Your task to perform on an android device: What's the weather going to be this weekend? Image 0: 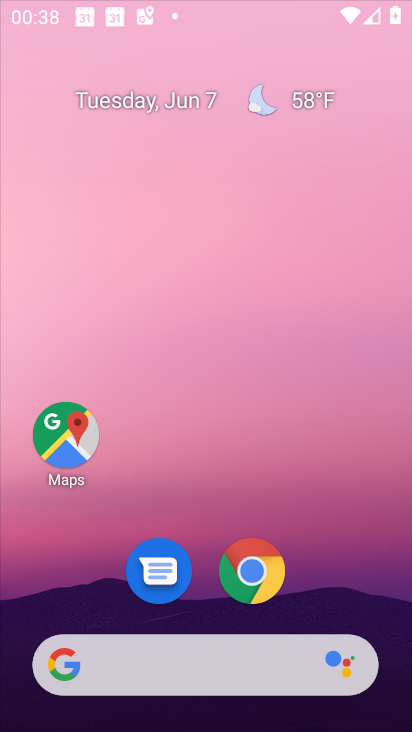
Step 0: press home button
Your task to perform on an android device: What's the weather going to be this weekend? Image 1: 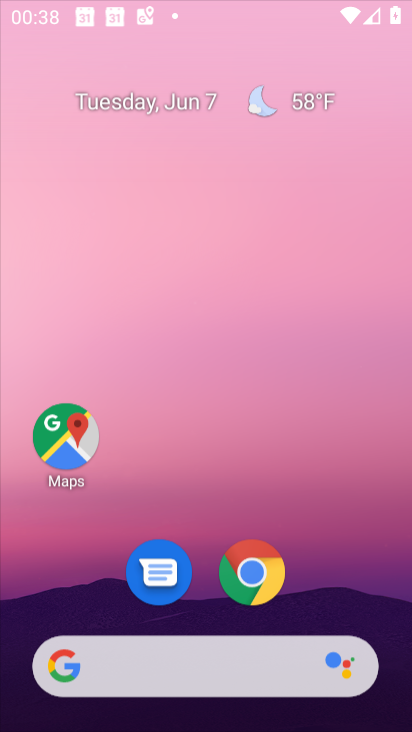
Step 1: click (267, 585)
Your task to perform on an android device: What's the weather going to be this weekend? Image 2: 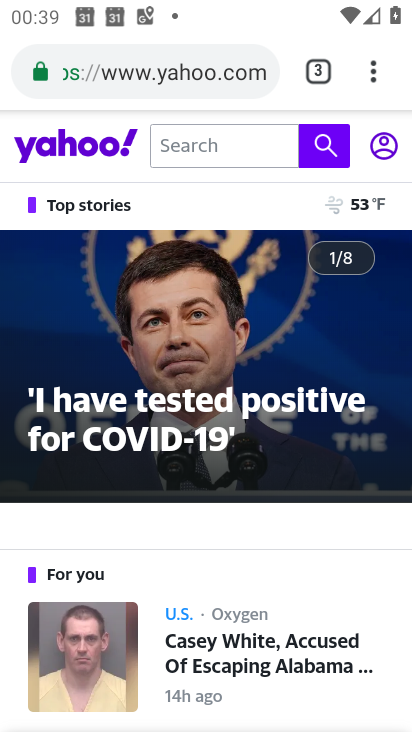
Step 2: click (142, 69)
Your task to perform on an android device: What's the weather going to be this weekend? Image 3: 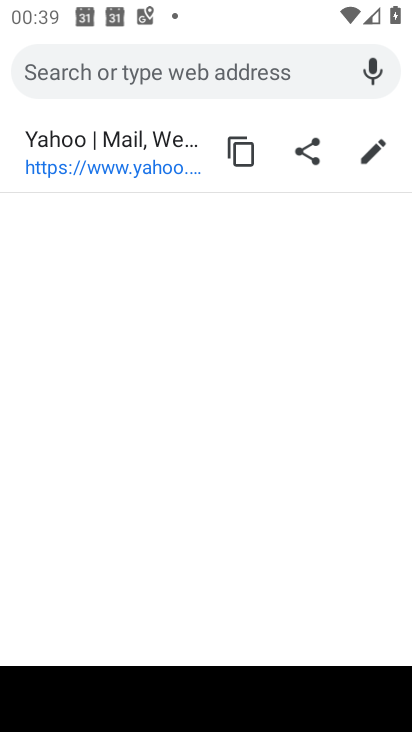
Step 3: type "What's the weather going to be this weekend?"
Your task to perform on an android device: What's the weather going to be this weekend? Image 4: 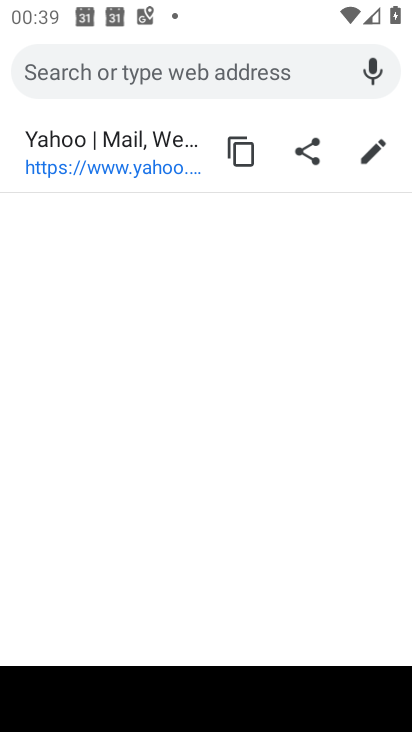
Step 4: click (283, 151)
Your task to perform on an android device: What's the weather going to be this weekend? Image 5: 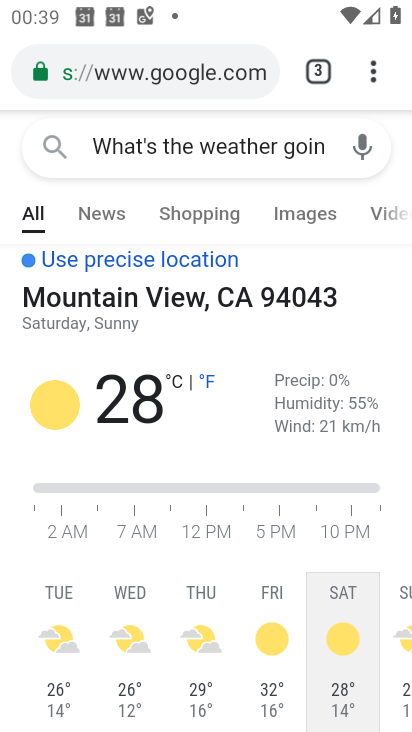
Step 5: task complete